Your task to perform on an android device: Open Chrome and go to the settings page Image 0: 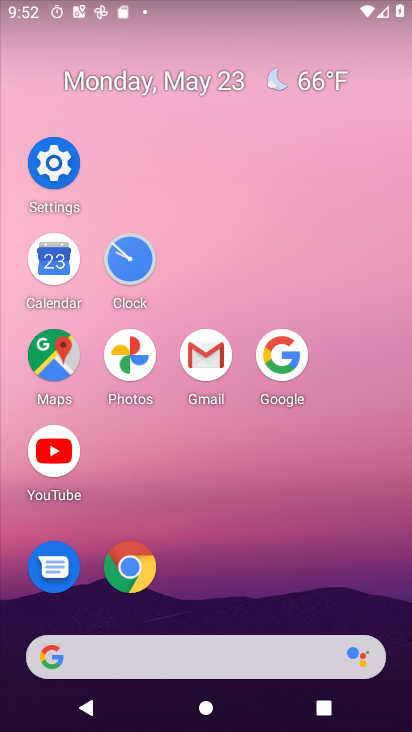
Step 0: click (133, 579)
Your task to perform on an android device: Open Chrome and go to the settings page Image 1: 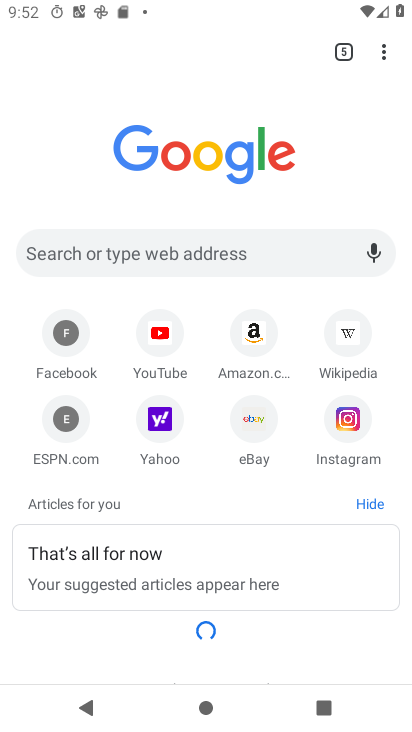
Step 1: click (392, 60)
Your task to perform on an android device: Open Chrome and go to the settings page Image 2: 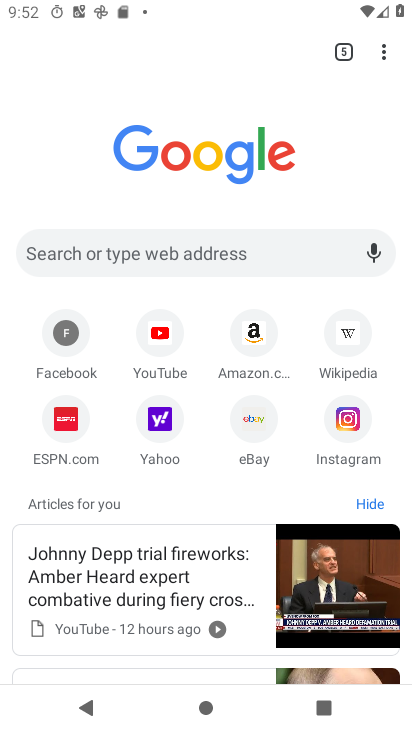
Step 2: click (389, 53)
Your task to perform on an android device: Open Chrome and go to the settings page Image 3: 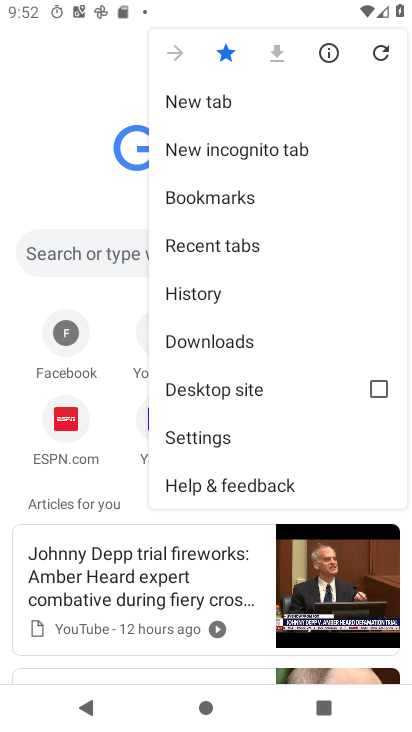
Step 3: click (219, 431)
Your task to perform on an android device: Open Chrome and go to the settings page Image 4: 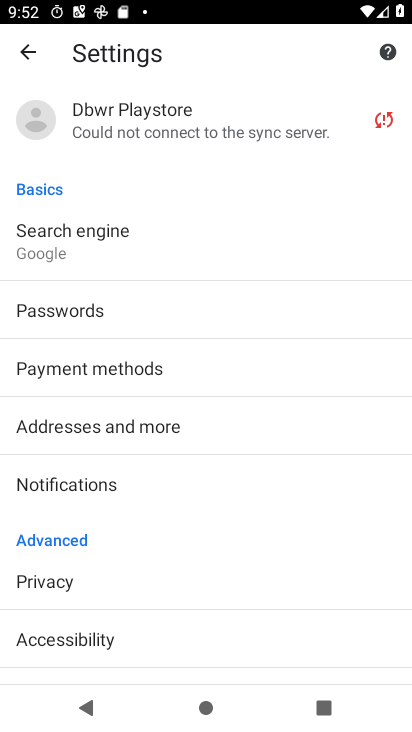
Step 4: task complete